Your task to perform on an android device: Go to CNN.com Image 0: 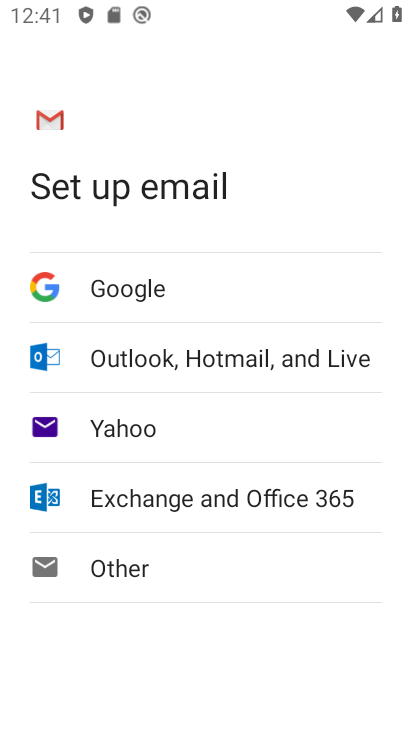
Step 0: press back button
Your task to perform on an android device: Go to CNN.com Image 1: 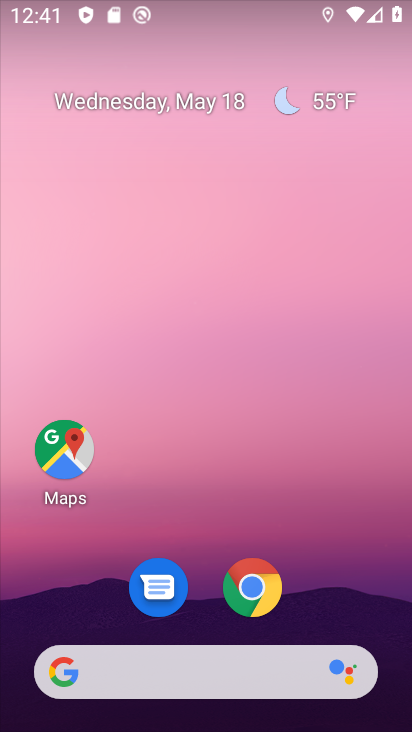
Step 1: click (247, 585)
Your task to perform on an android device: Go to CNN.com Image 2: 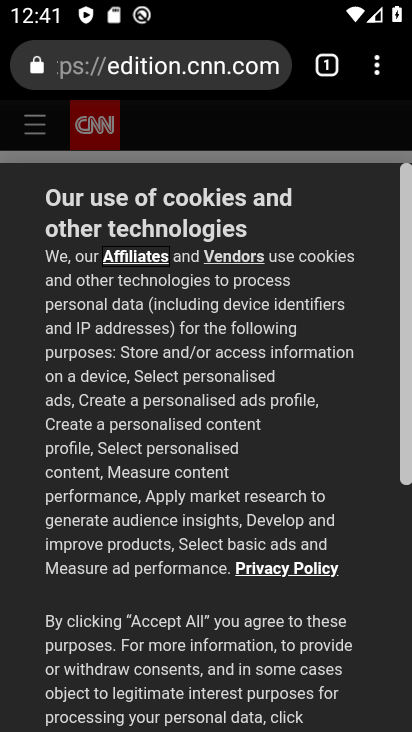
Step 2: task complete